Your task to perform on an android device: turn on the 24-hour format for clock Image 0: 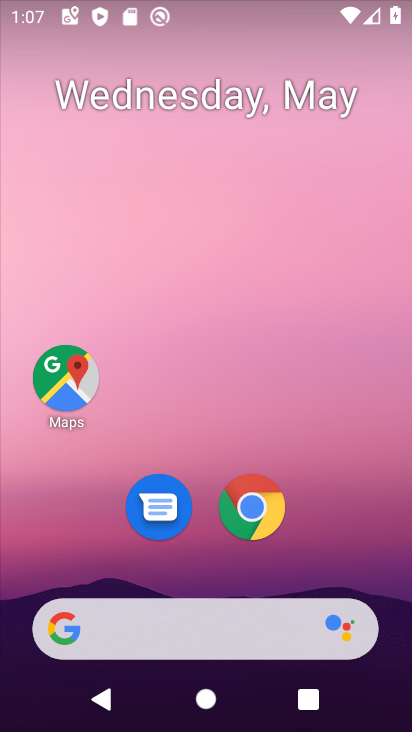
Step 0: drag from (331, 537) to (320, 225)
Your task to perform on an android device: turn on the 24-hour format for clock Image 1: 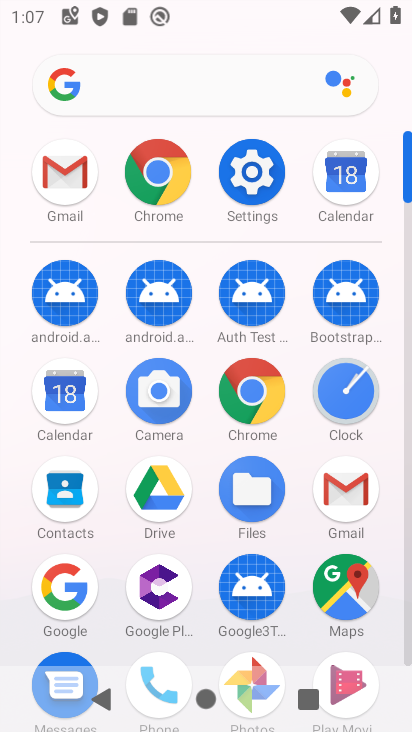
Step 1: click (337, 384)
Your task to perform on an android device: turn on the 24-hour format for clock Image 2: 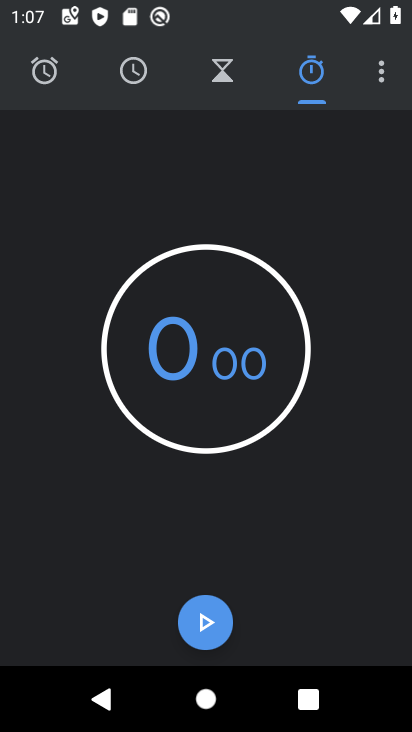
Step 2: click (371, 76)
Your task to perform on an android device: turn on the 24-hour format for clock Image 3: 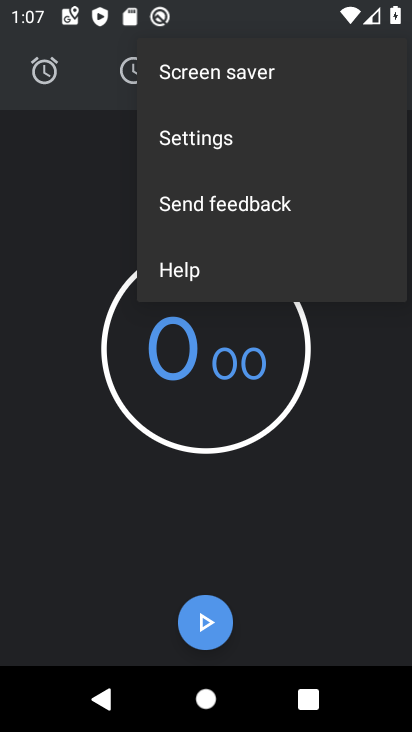
Step 3: click (219, 154)
Your task to perform on an android device: turn on the 24-hour format for clock Image 4: 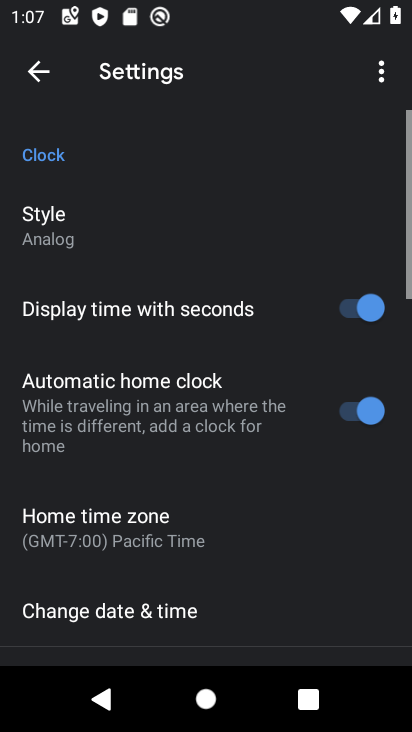
Step 4: drag from (251, 497) to (264, 320)
Your task to perform on an android device: turn on the 24-hour format for clock Image 5: 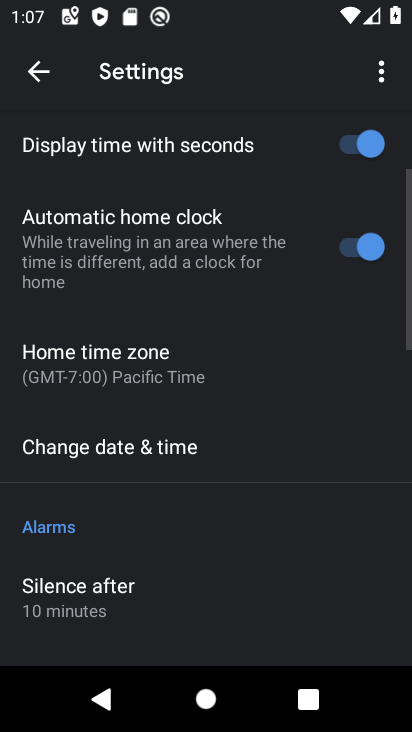
Step 5: click (188, 450)
Your task to perform on an android device: turn on the 24-hour format for clock Image 6: 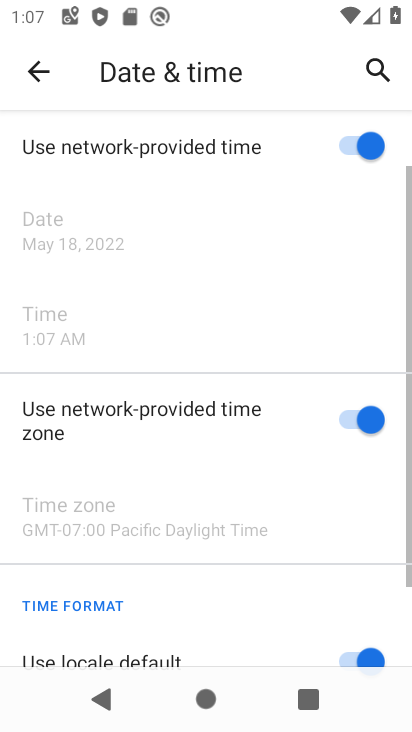
Step 6: drag from (333, 523) to (348, 253)
Your task to perform on an android device: turn on the 24-hour format for clock Image 7: 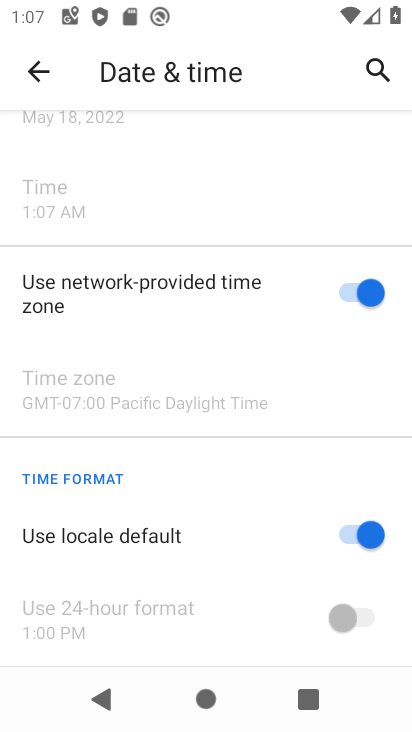
Step 7: click (362, 522)
Your task to perform on an android device: turn on the 24-hour format for clock Image 8: 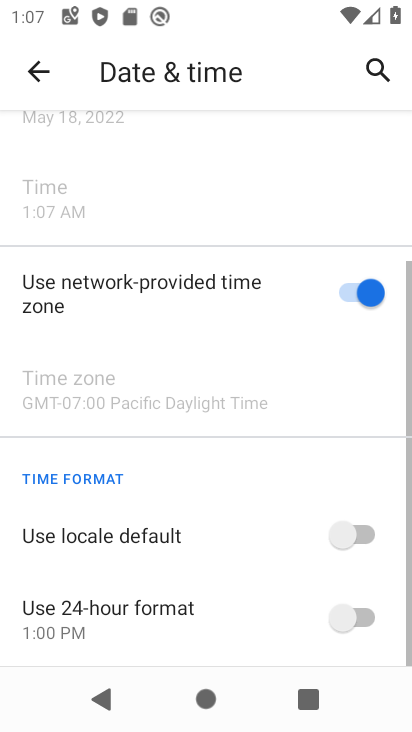
Step 8: click (353, 611)
Your task to perform on an android device: turn on the 24-hour format for clock Image 9: 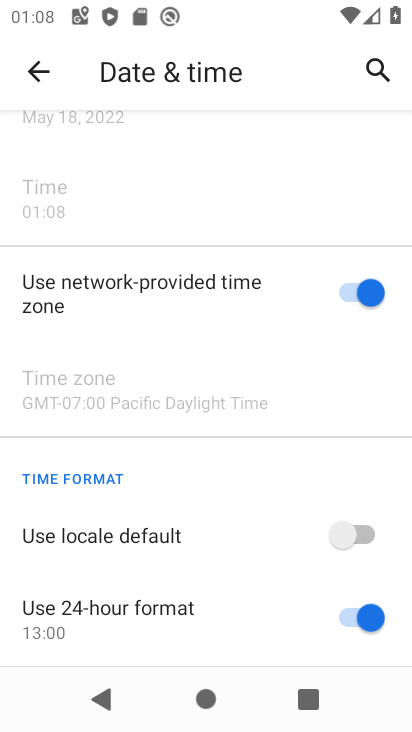
Step 9: task complete